Your task to perform on an android device: Open the map Image 0: 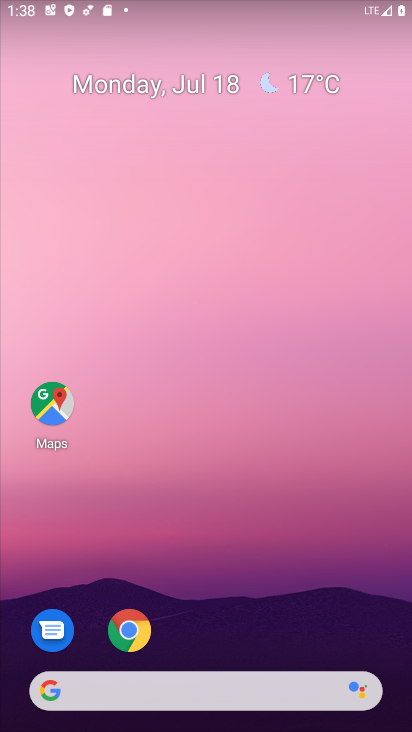
Step 0: drag from (266, 621) to (261, 261)
Your task to perform on an android device: Open the map Image 1: 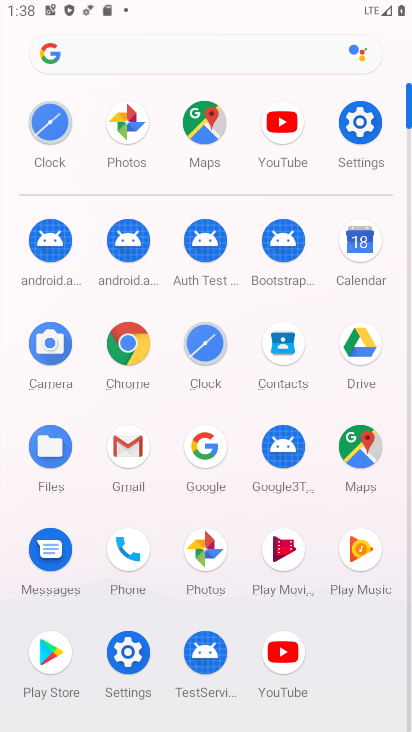
Step 1: click (206, 129)
Your task to perform on an android device: Open the map Image 2: 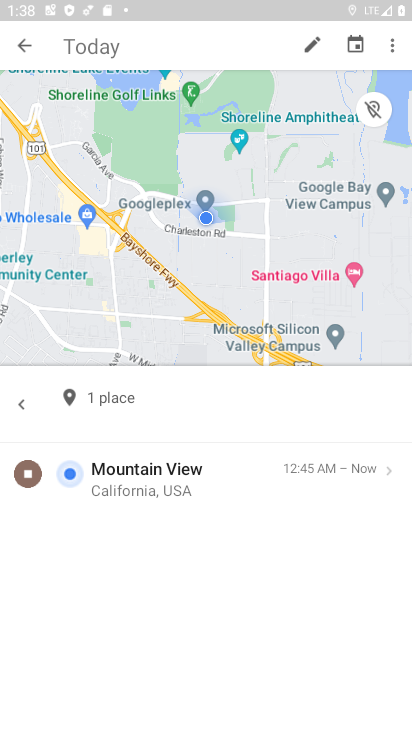
Step 2: click (25, 45)
Your task to perform on an android device: Open the map Image 3: 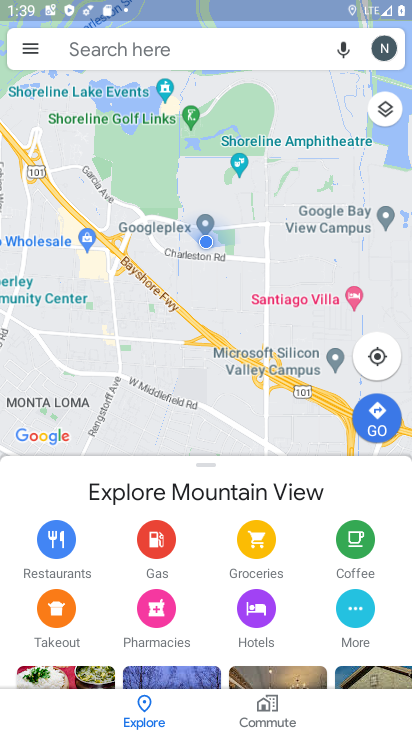
Step 3: task complete